Your task to perform on an android device: Go to Google Image 0: 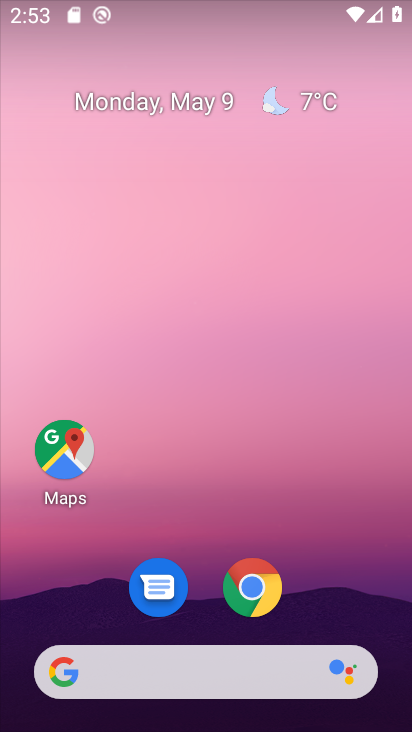
Step 0: drag from (68, 644) to (238, 186)
Your task to perform on an android device: Go to Google Image 1: 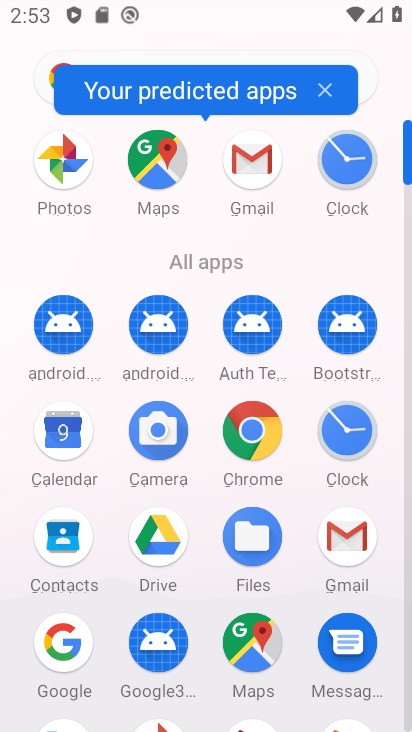
Step 1: click (60, 645)
Your task to perform on an android device: Go to Google Image 2: 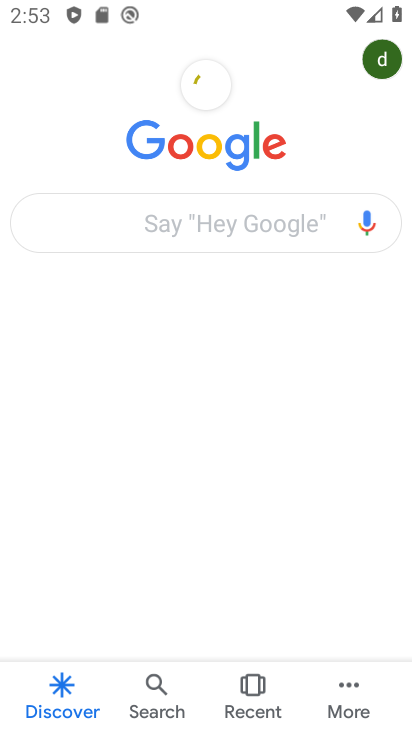
Step 2: task complete